Your task to perform on an android device: change notification settings in the gmail app Image 0: 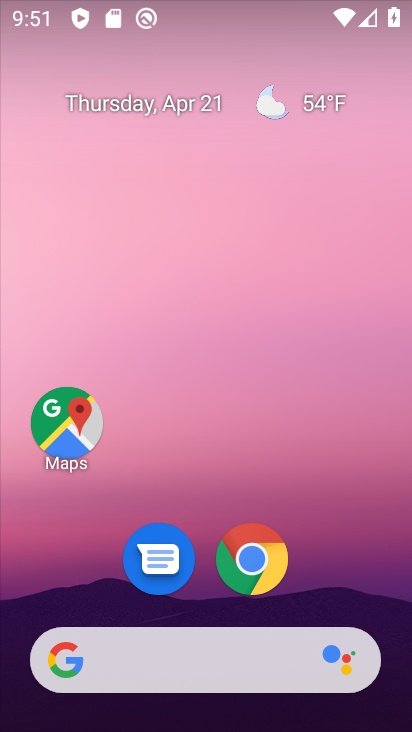
Step 0: drag from (217, 567) to (248, 132)
Your task to perform on an android device: change notification settings in the gmail app Image 1: 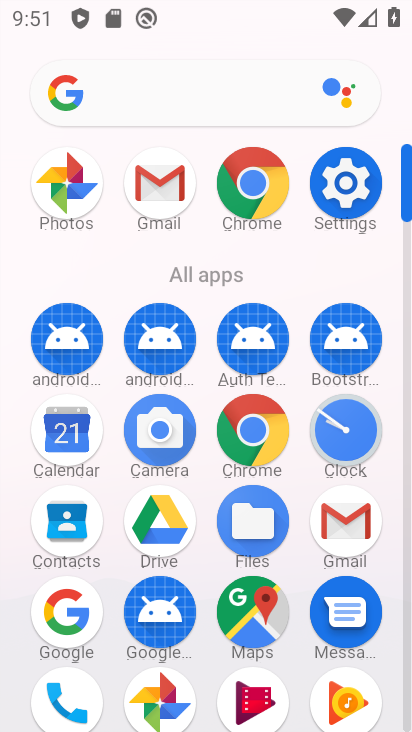
Step 1: click (154, 178)
Your task to perform on an android device: change notification settings in the gmail app Image 2: 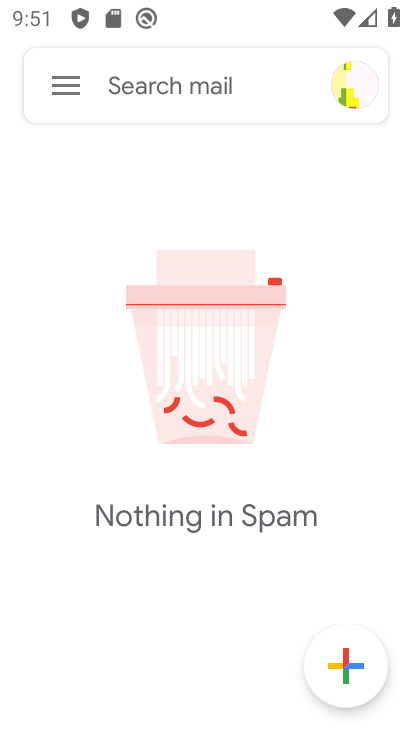
Step 2: click (67, 90)
Your task to perform on an android device: change notification settings in the gmail app Image 3: 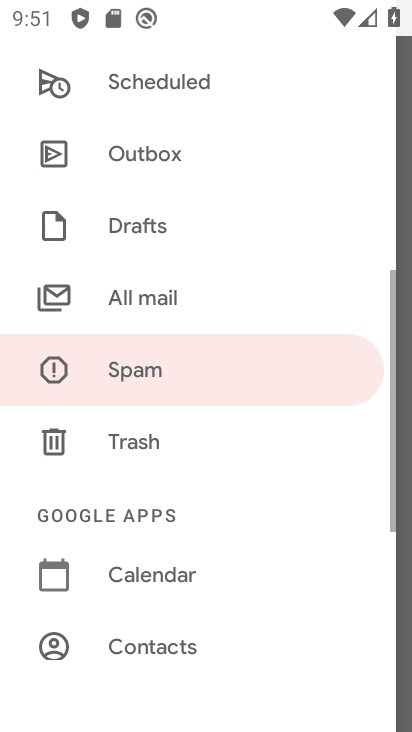
Step 3: drag from (162, 547) to (290, 48)
Your task to perform on an android device: change notification settings in the gmail app Image 4: 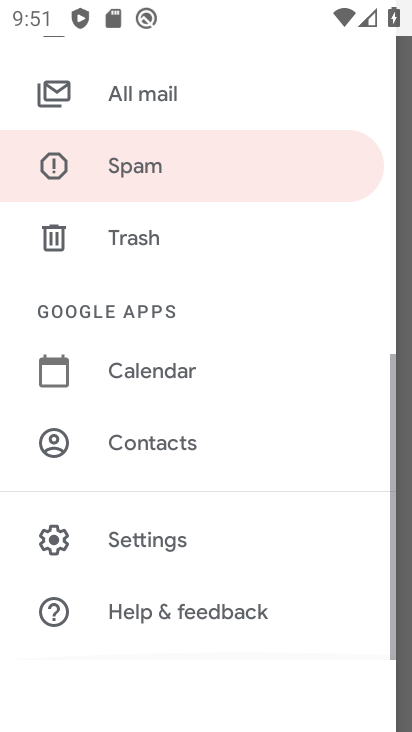
Step 4: click (167, 534)
Your task to perform on an android device: change notification settings in the gmail app Image 5: 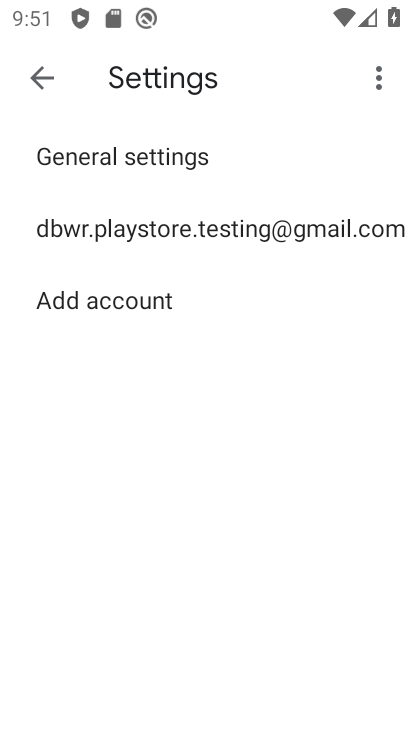
Step 5: click (132, 230)
Your task to perform on an android device: change notification settings in the gmail app Image 6: 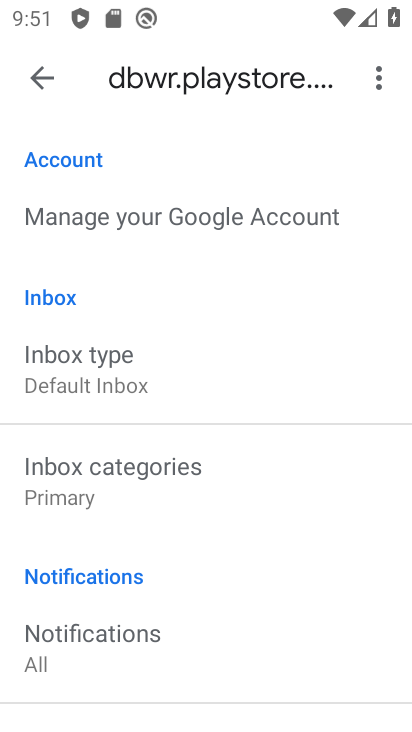
Step 6: drag from (143, 650) to (262, 136)
Your task to perform on an android device: change notification settings in the gmail app Image 7: 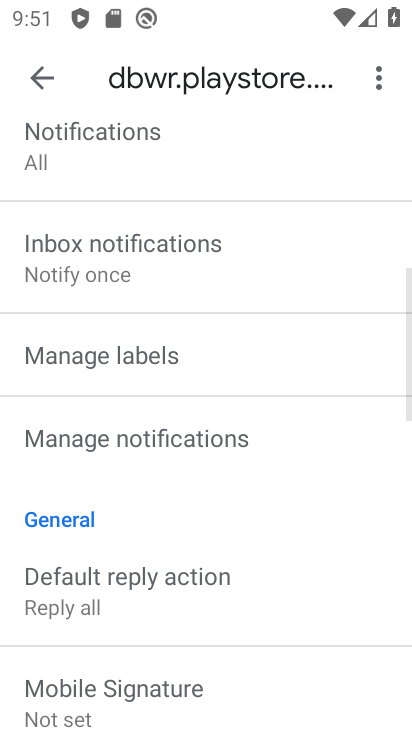
Step 7: click (201, 450)
Your task to perform on an android device: change notification settings in the gmail app Image 8: 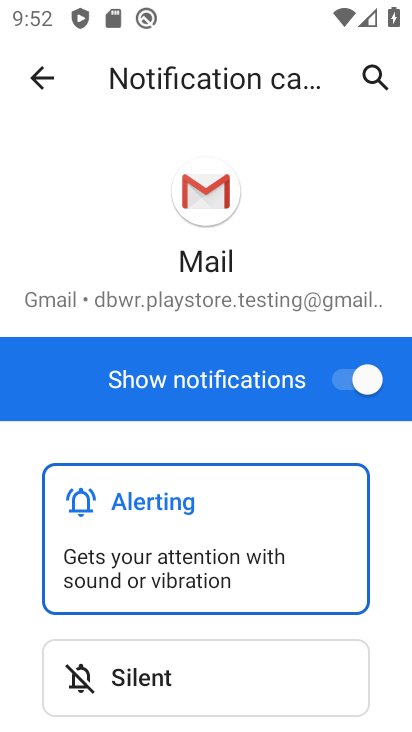
Step 8: drag from (210, 591) to (315, 194)
Your task to perform on an android device: change notification settings in the gmail app Image 9: 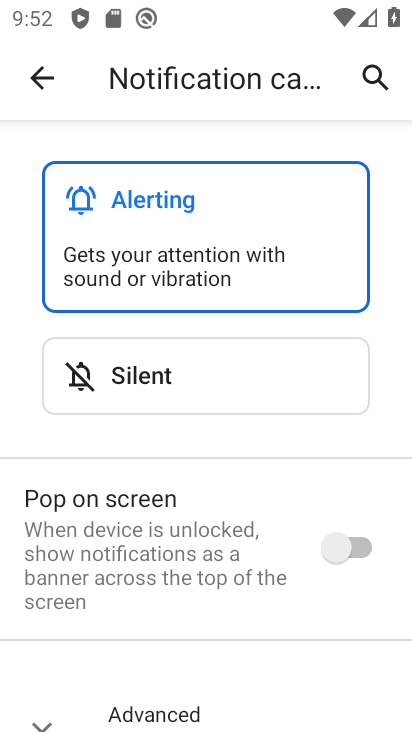
Step 9: click (364, 545)
Your task to perform on an android device: change notification settings in the gmail app Image 10: 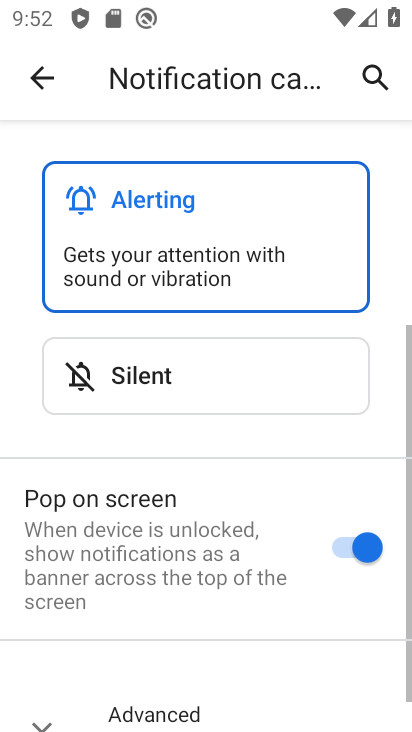
Step 10: task complete